Your task to perform on an android device: Go to Google maps Image 0: 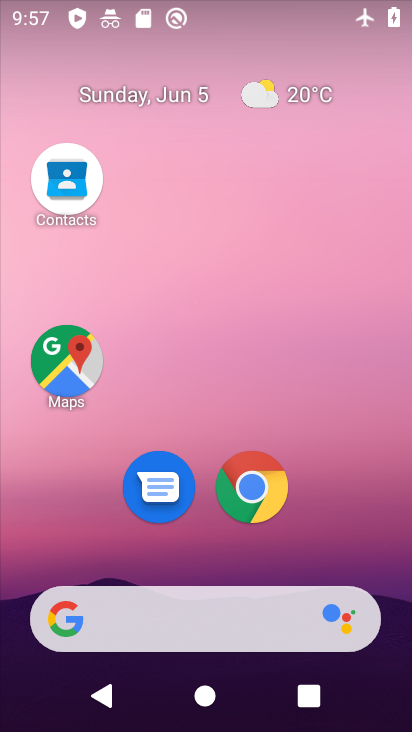
Step 0: drag from (229, 555) to (292, 235)
Your task to perform on an android device: Go to Google maps Image 1: 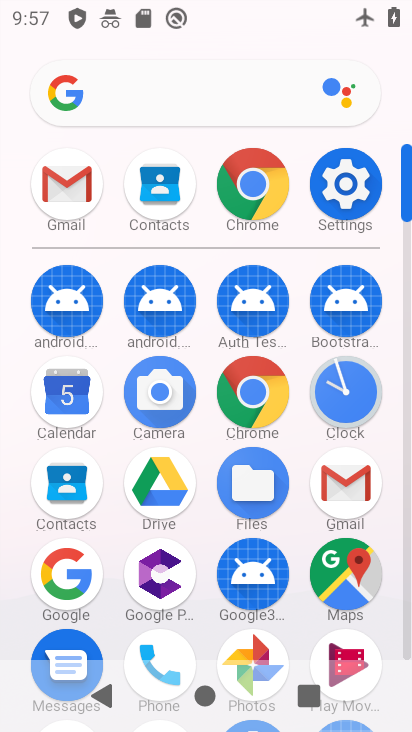
Step 1: click (362, 578)
Your task to perform on an android device: Go to Google maps Image 2: 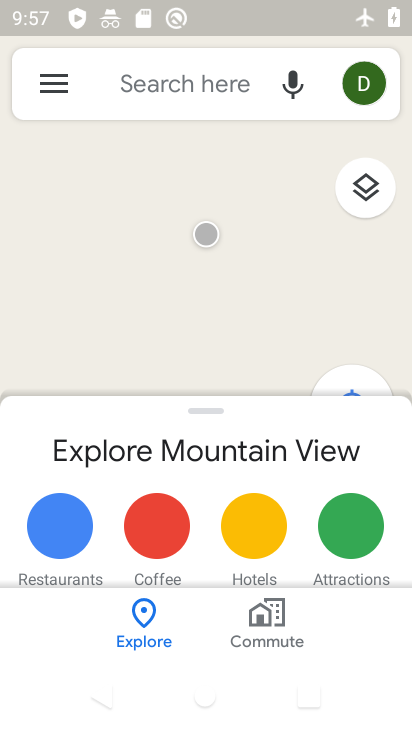
Step 2: click (222, 82)
Your task to perform on an android device: Go to Google maps Image 3: 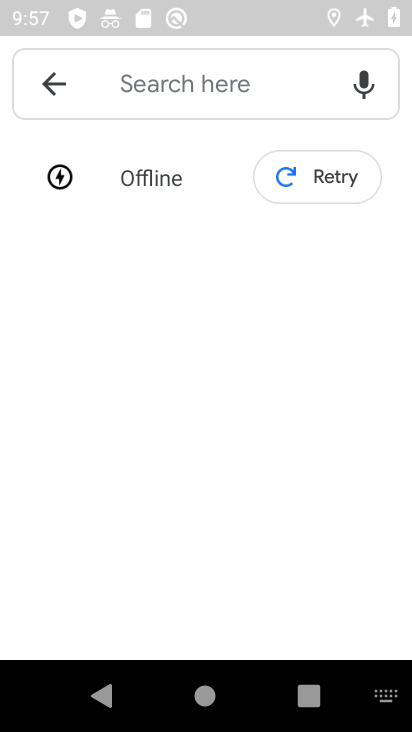
Step 3: task complete